Your task to perform on an android device: Open Android settings Image 0: 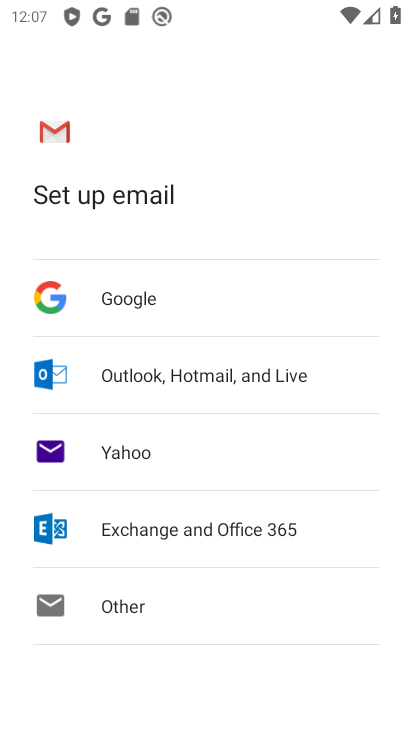
Step 0: press home button
Your task to perform on an android device: Open Android settings Image 1: 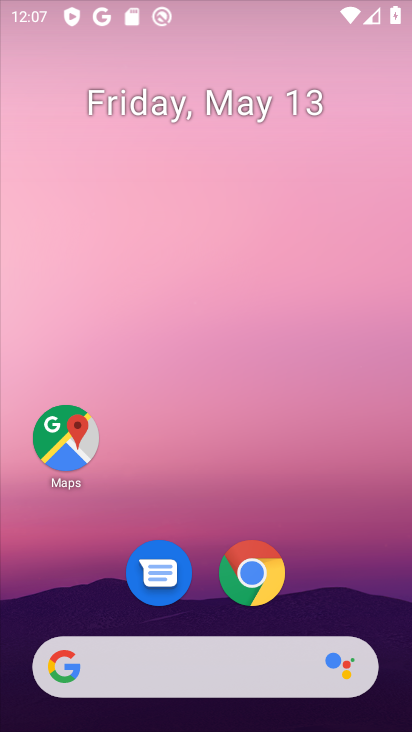
Step 1: drag from (202, 492) to (246, 166)
Your task to perform on an android device: Open Android settings Image 2: 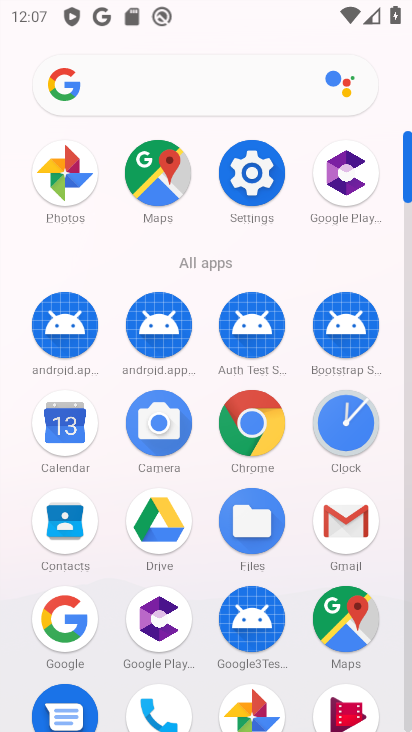
Step 2: click (260, 173)
Your task to perform on an android device: Open Android settings Image 3: 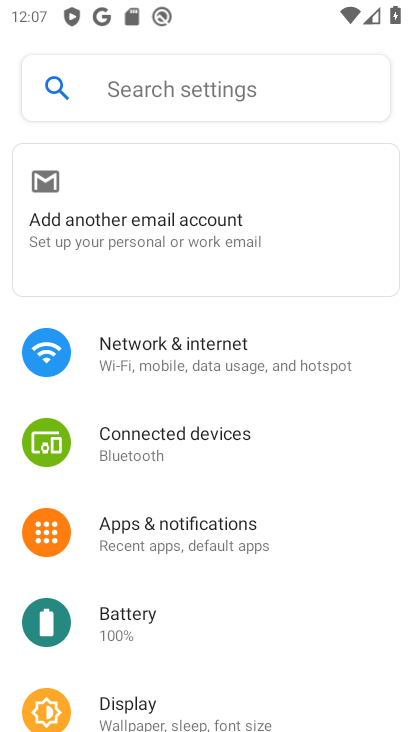
Step 3: drag from (233, 430) to (278, 50)
Your task to perform on an android device: Open Android settings Image 4: 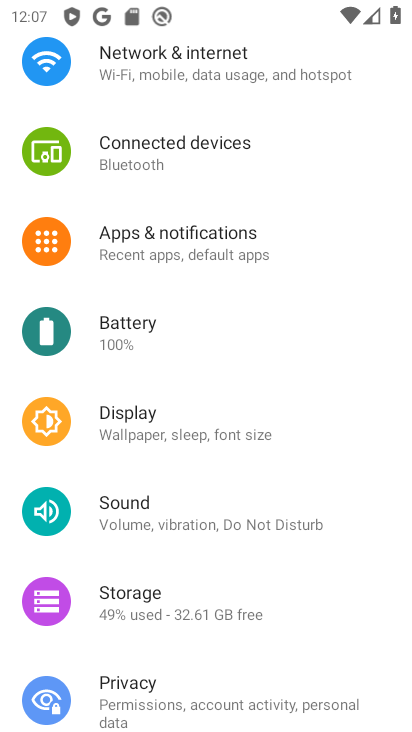
Step 4: drag from (154, 567) to (194, 182)
Your task to perform on an android device: Open Android settings Image 5: 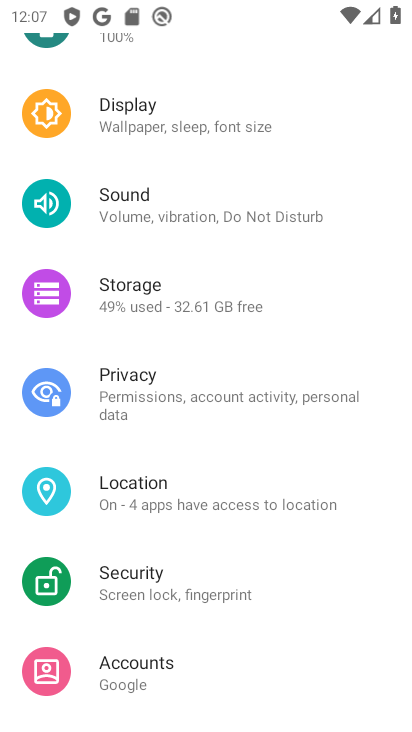
Step 5: drag from (279, 459) to (296, 19)
Your task to perform on an android device: Open Android settings Image 6: 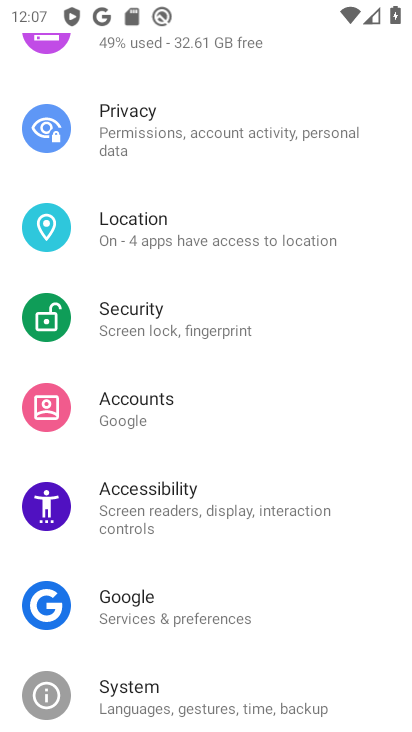
Step 6: drag from (237, 535) to (265, 58)
Your task to perform on an android device: Open Android settings Image 7: 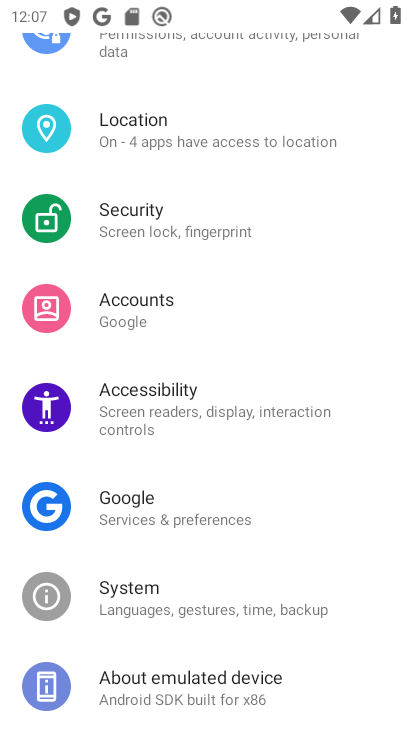
Step 7: click (231, 679)
Your task to perform on an android device: Open Android settings Image 8: 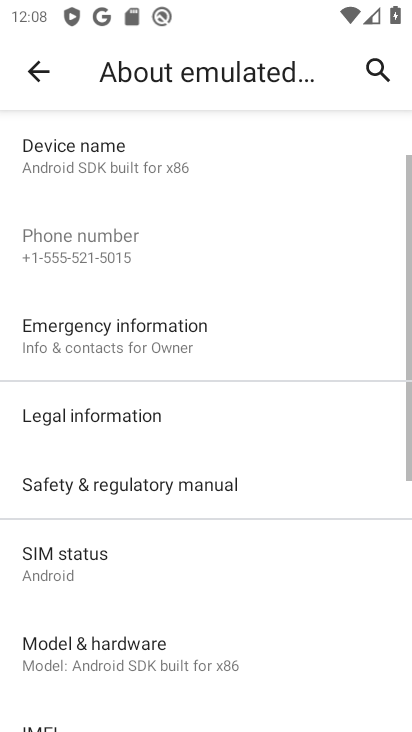
Step 8: task complete